Your task to perform on an android device: turn pop-ups on in chrome Image 0: 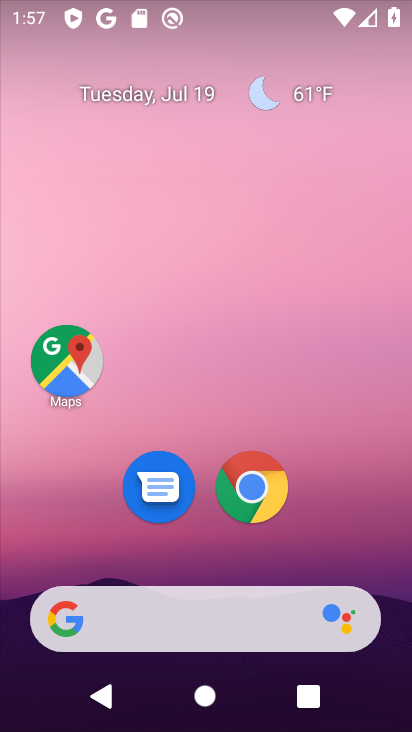
Step 0: click (253, 494)
Your task to perform on an android device: turn pop-ups on in chrome Image 1: 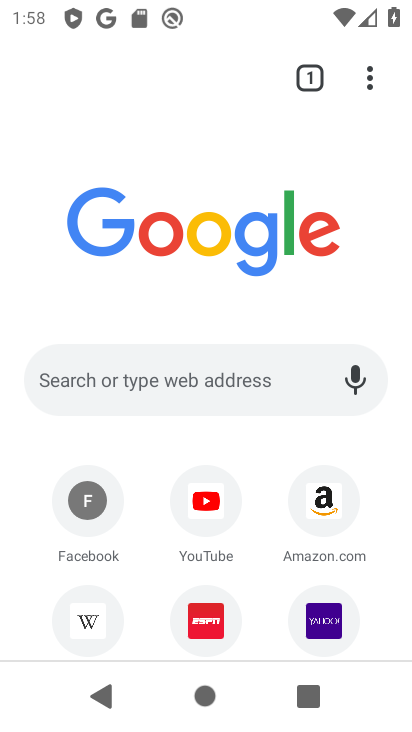
Step 1: drag from (361, 67) to (111, 533)
Your task to perform on an android device: turn pop-ups on in chrome Image 2: 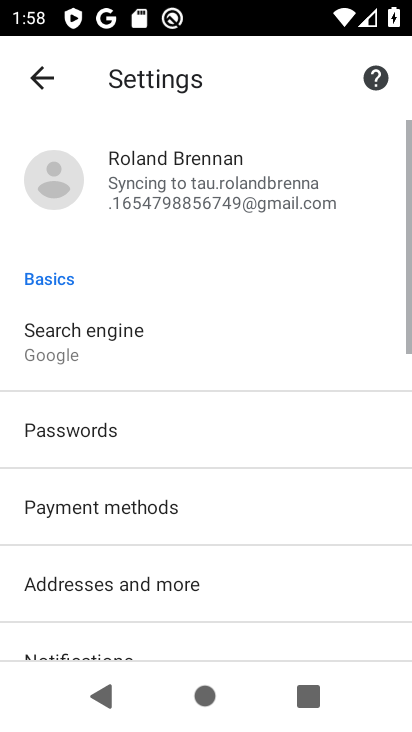
Step 2: drag from (126, 542) to (212, 113)
Your task to perform on an android device: turn pop-ups on in chrome Image 3: 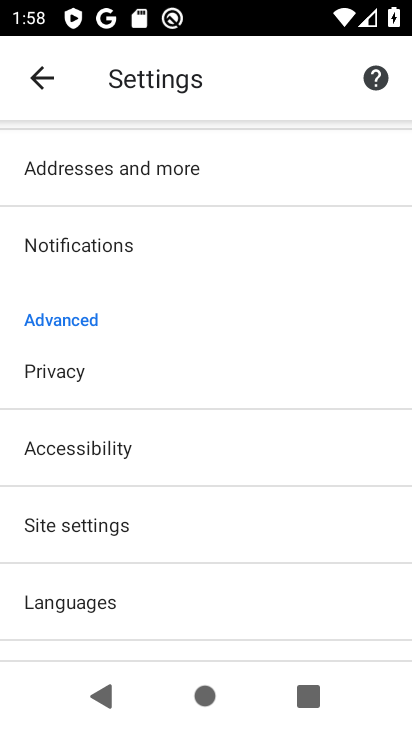
Step 3: click (130, 532)
Your task to perform on an android device: turn pop-ups on in chrome Image 4: 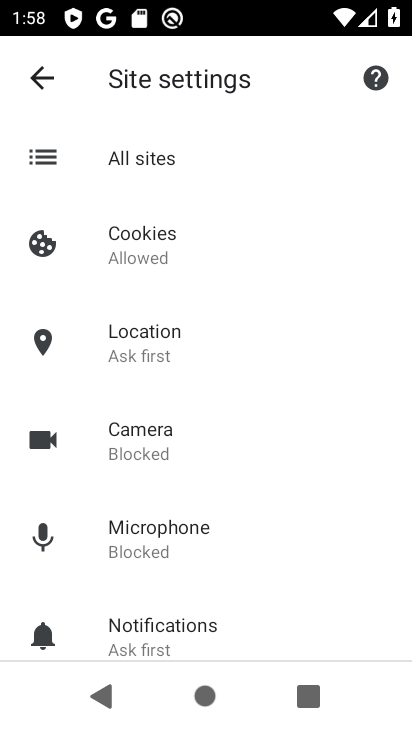
Step 4: drag from (170, 618) to (233, 77)
Your task to perform on an android device: turn pop-ups on in chrome Image 5: 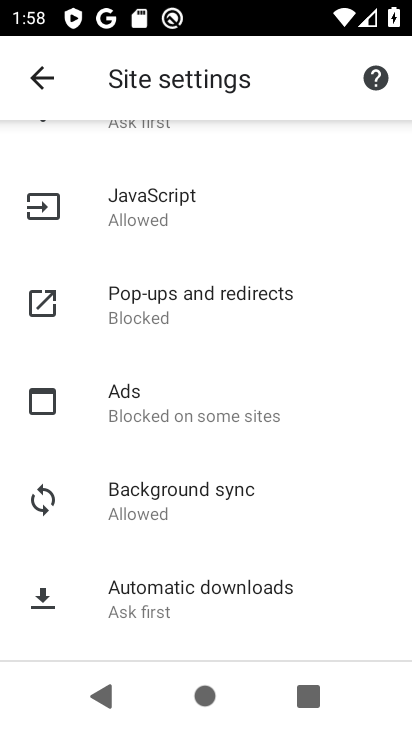
Step 5: click (159, 290)
Your task to perform on an android device: turn pop-ups on in chrome Image 6: 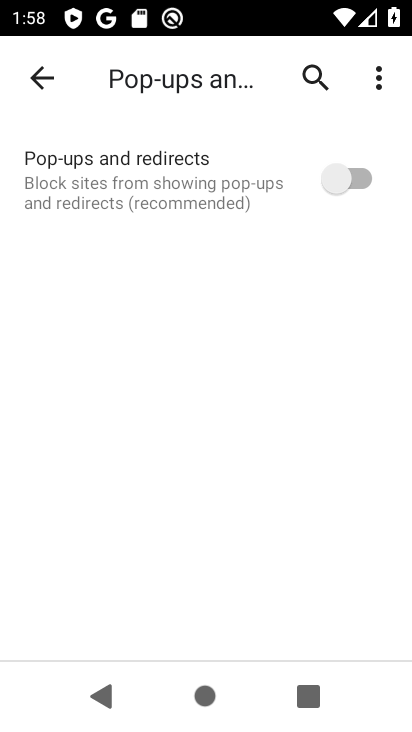
Step 6: click (346, 186)
Your task to perform on an android device: turn pop-ups on in chrome Image 7: 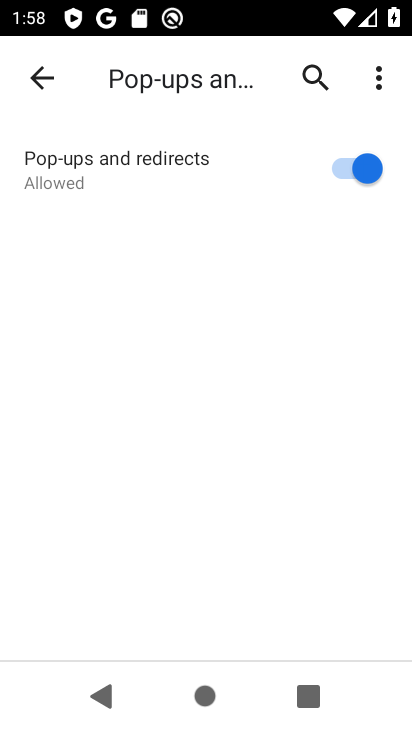
Step 7: task complete